Your task to perform on an android device: Go to calendar. Show me events next week Image 0: 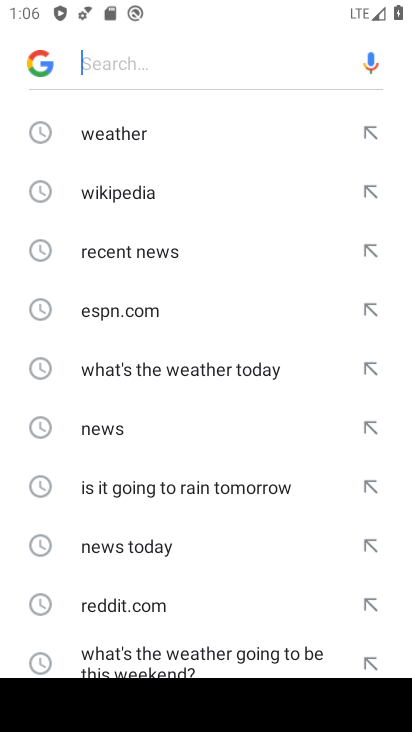
Step 0: press home button
Your task to perform on an android device: Go to calendar. Show me events next week Image 1: 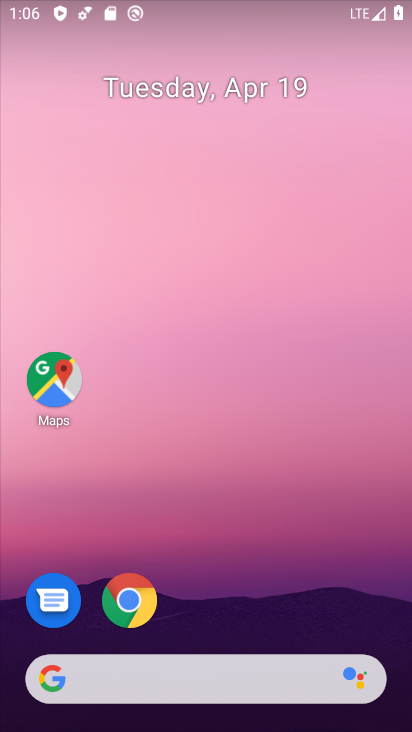
Step 1: drag from (230, 636) to (138, 122)
Your task to perform on an android device: Go to calendar. Show me events next week Image 2: 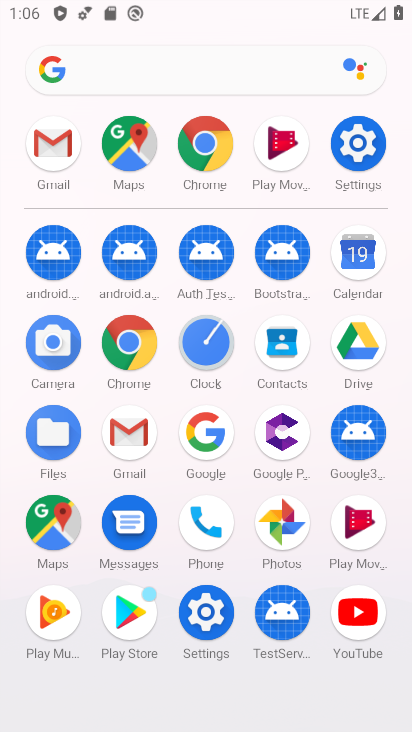
Step 2: click (354, 258)
Your task to perform on an android device: Go to calendar. Show me events next week Image 3: 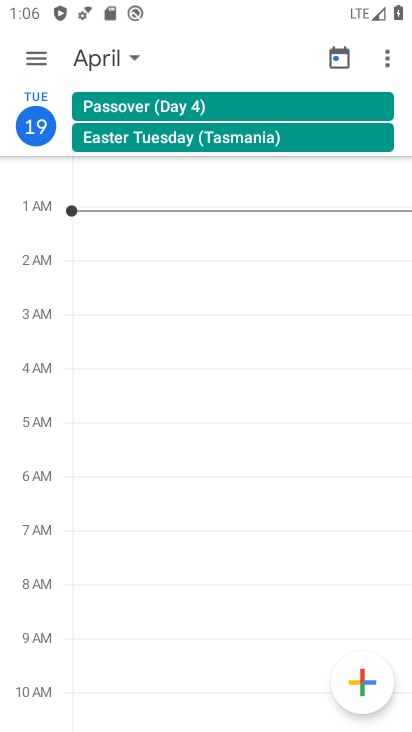
Step 3: click (31, 56)
Your task to perform on an android device: Go to calendar. Show me events next week Image 4: 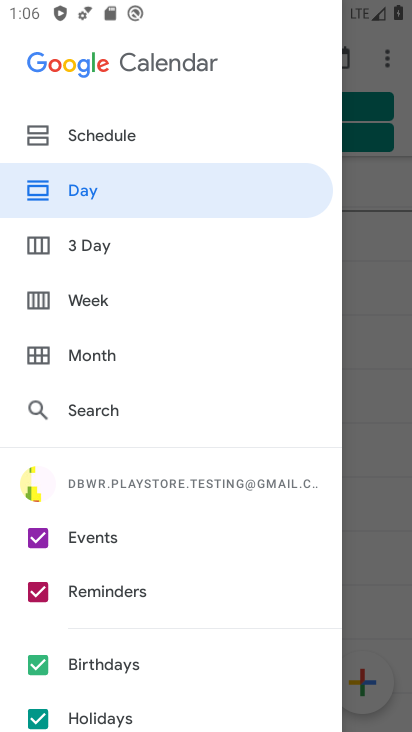
Step 4: click (114, 283)
Your task to perform on an android device: Go to calendar. Show me events next week Image 5: 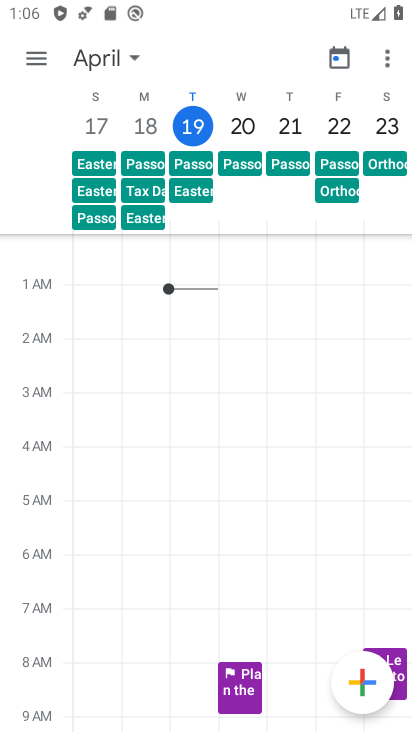
Step 5: task complete